Your task to perform on an android device: Do I have any events tomorrow? Image 0: 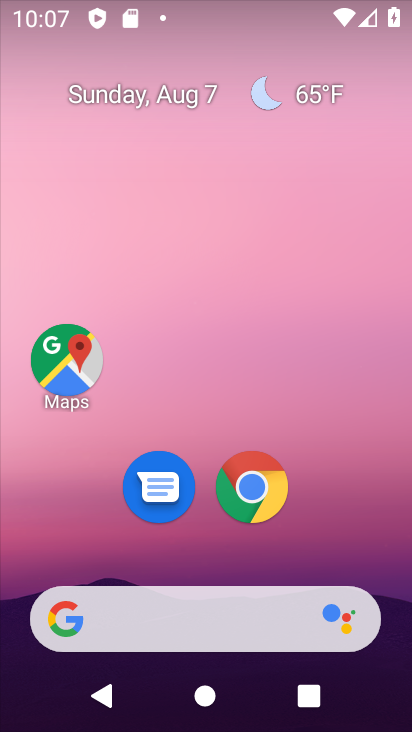
Step 0: drag from (388, 678) to (366, 148)
Your task to perform on an android device: Do I have any events tomorrow? Image 1: 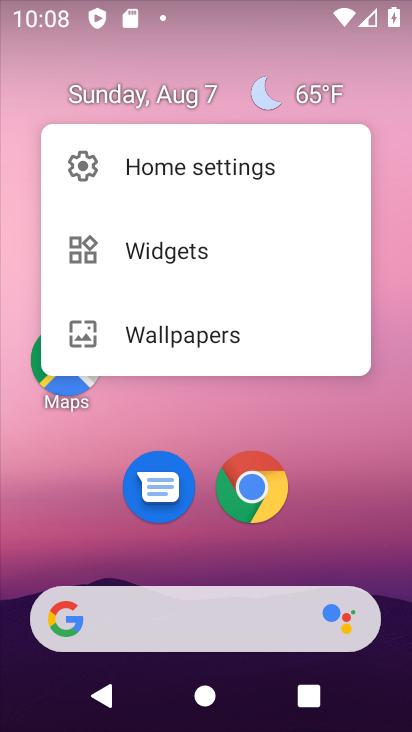
Step 1: press back button
Your task to perform on an android device: Do I have any events tomorrow? Image 2: 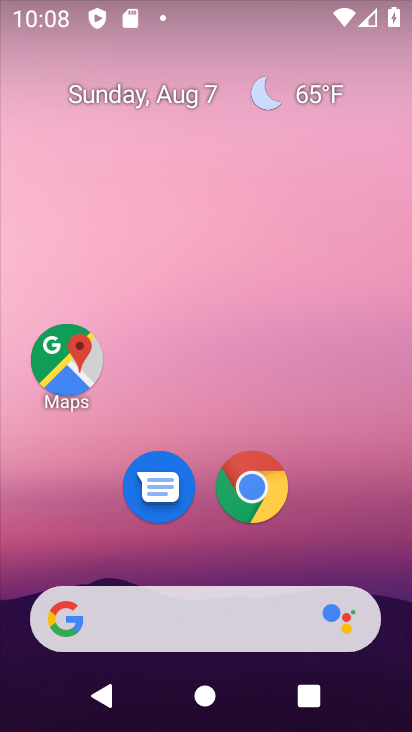
Step 2: drag from (373, 710) to (302, 23)
Your task to perform on an android device: Do I have any events tomorrow? Image 3: 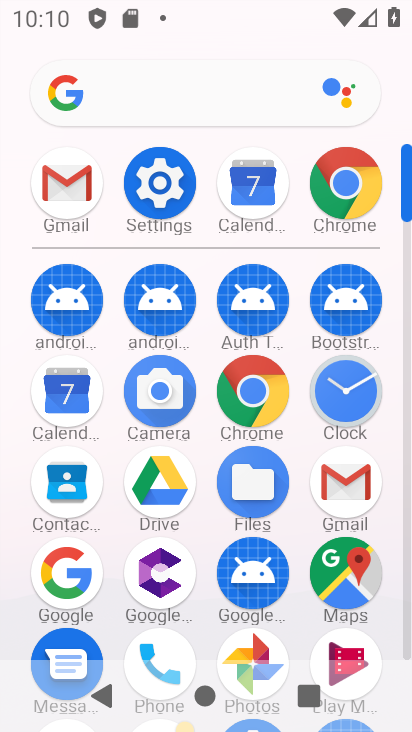
Step 3: click (68, 408)
Your task to perform on an android device: Do I have any events tomorrow? Image 4: 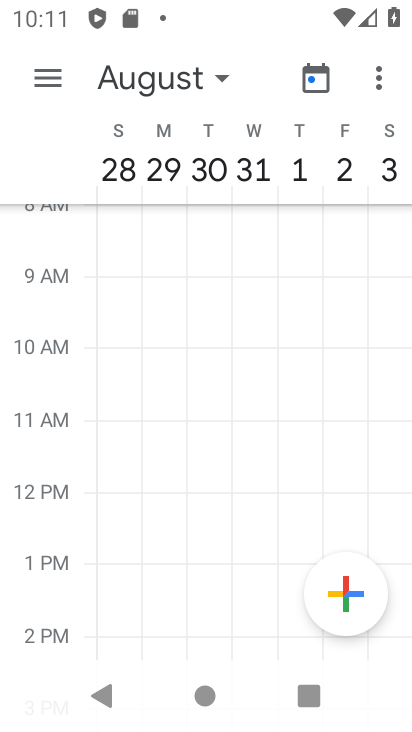
Step 4: click (54, 76)
Your task to perform on an android device: Do I have any events tomorrow? Image 5: 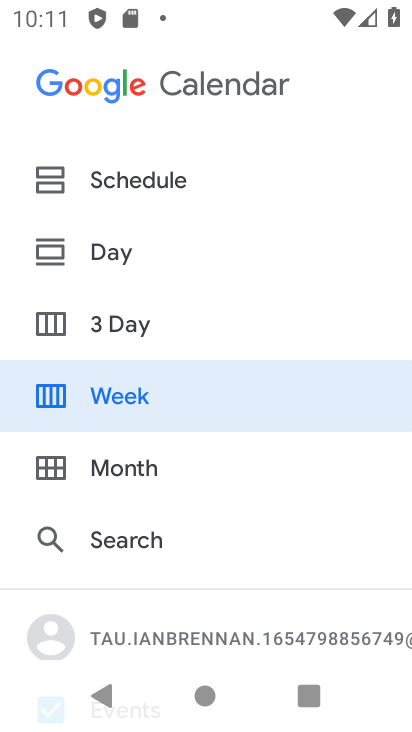
Step 5: click (121, 247)
Your task to perform on an android device: Do I have any events tomorrow? Image 6: 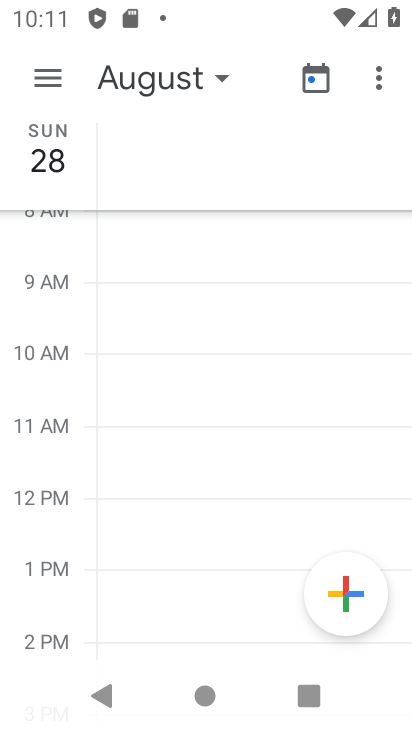
Step 6: click (221, 76)
Your task to perform on an android device: Do I have any events tomorrow? Image 7: 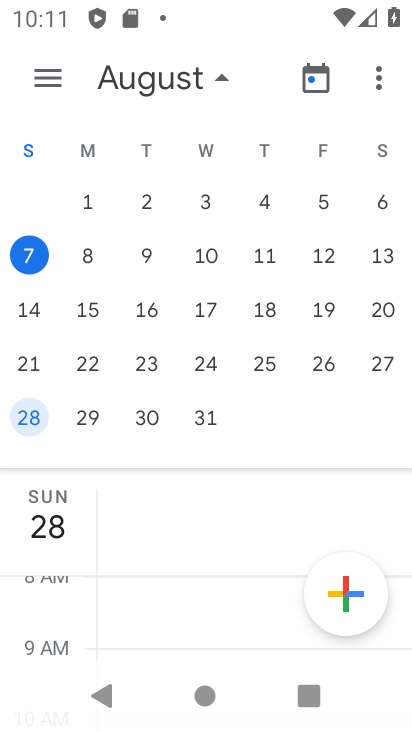
Step 7: click (37, 258)
Your task to perform on an android device: Do I have any events tomorrow? Image 8: 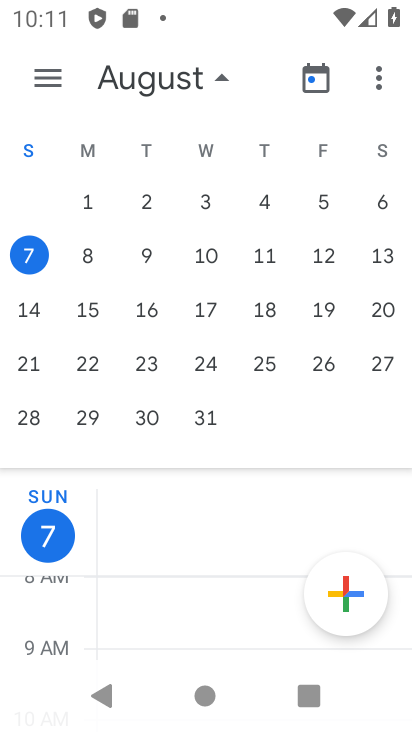
Step 8: click (74, 254)
Your task to perform on an android device: Do I have any events tomorrow? Image 9: 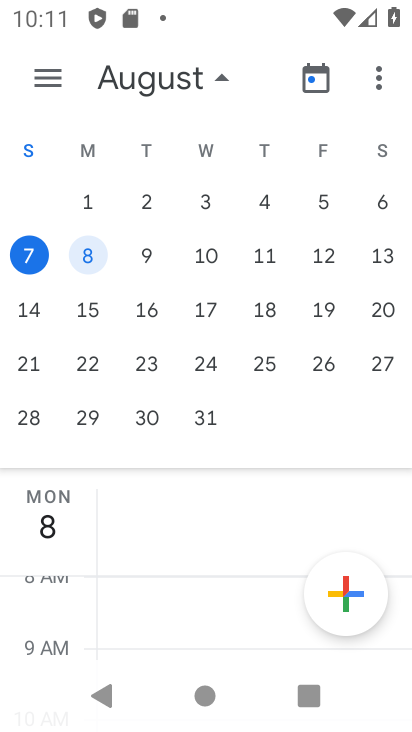
Step 9: click (48, 78)
Your task to perform on an android device: Do I have any events tomorrow? Image 10: 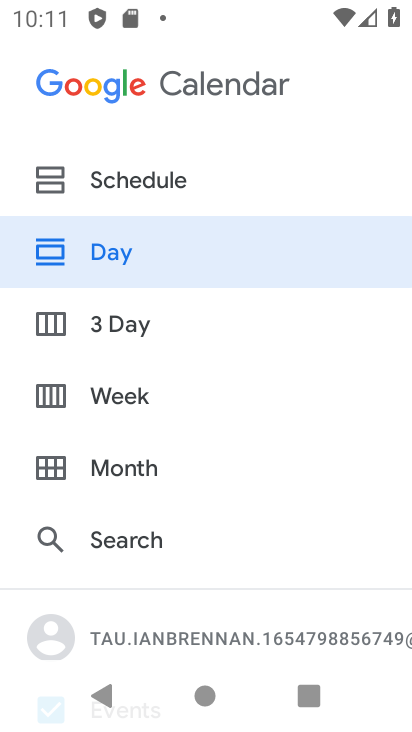
Step 10: click (128, 249)
Your task to perform on an android device: Do I have any events tomorrow? Image 11: 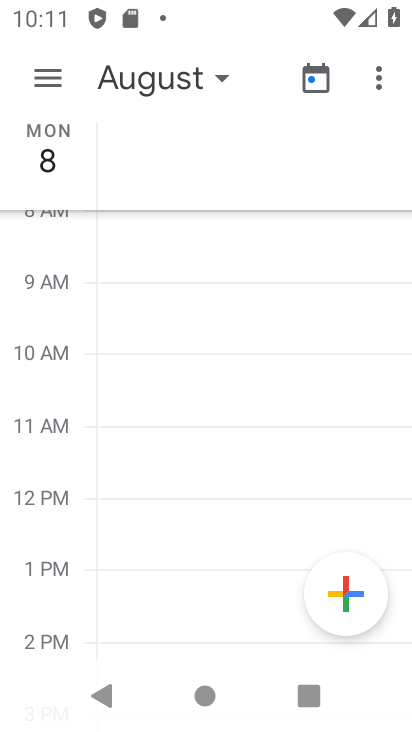
Step 11: task complete